Your task to perform on an android device: Search for pizza restaurants on Maps Image 0: 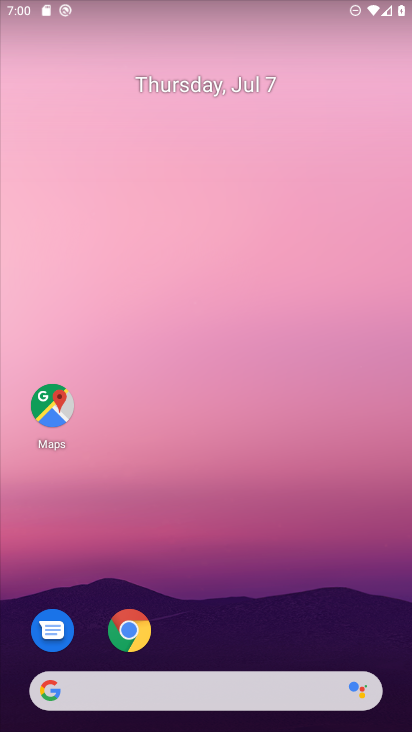
Step 0: click (53, 417)
Your task to perform on an android device: Search for pizza restaurants on Maps Image 1: 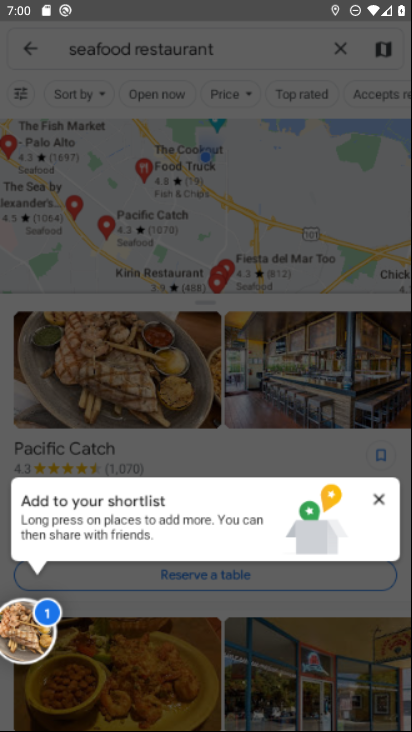
Step 1: click (272, 38)
Your task to perform on an android device: Search for pizza restaurants on Maps Image 2: 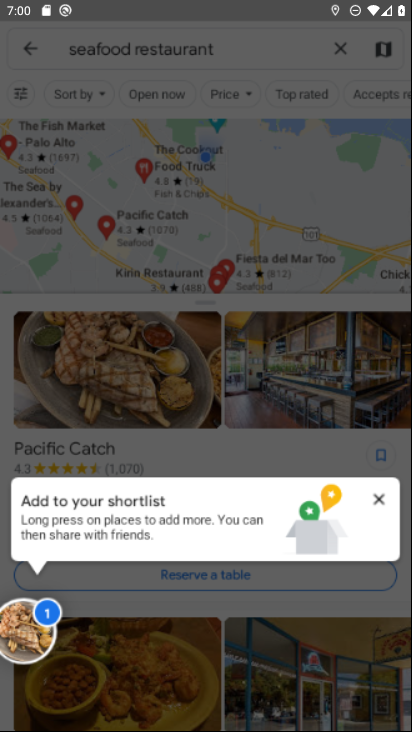
Step 2: click (375, 499)
Your task to perform on an android device: Search for pizza restaurants on Maps Image 3: 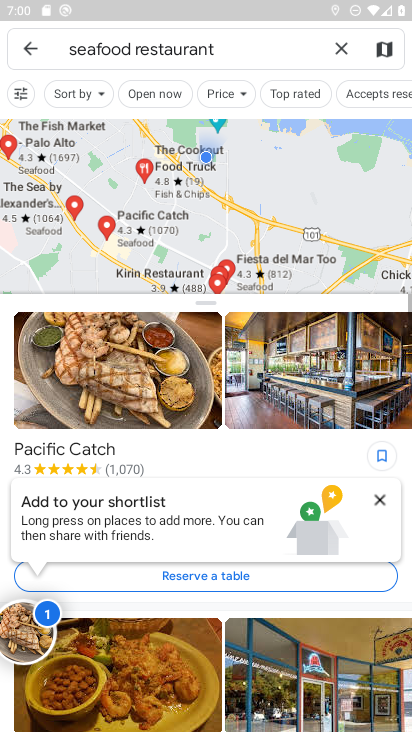
Step 3: click (341, 44)
Your task to perform on an android device: Search for pizza restaurants on Maps Image 4: 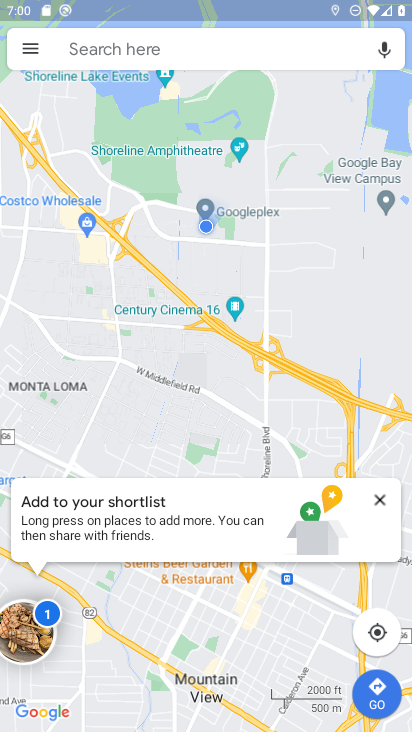
Step 4: click (198, 42)
Your task to perform on an android device: Search for pizza restaurants on Maps Image 5: 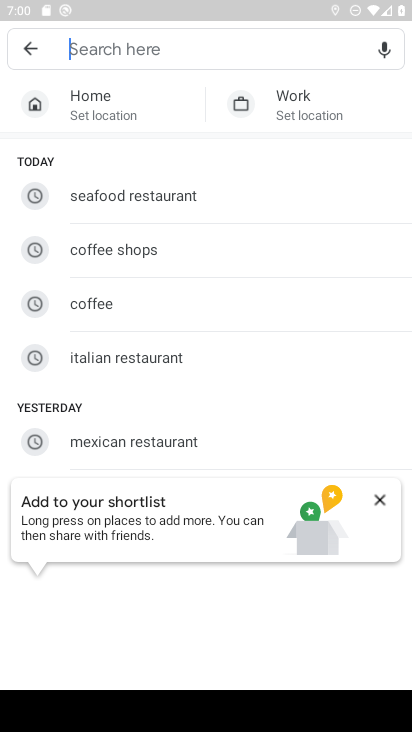
Step 5: type "pizza restaurants"
Your task to perform on an android device: Search for pizza restaurants on Maps Image 6: 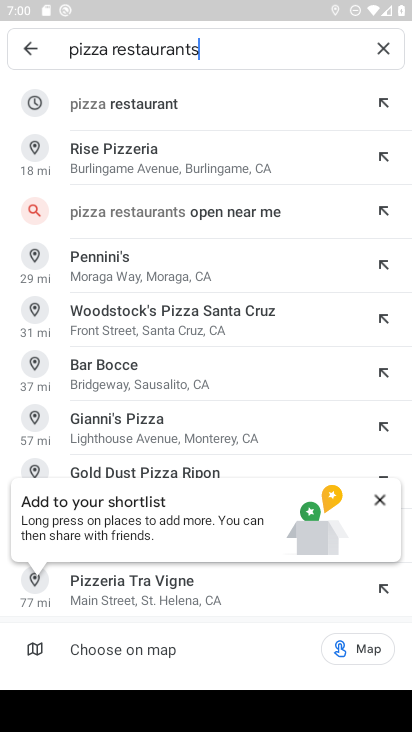
Step 6: click (135, 91)
Your task to perform on an android device: Search for pizza restaurants on Maps Image 7: 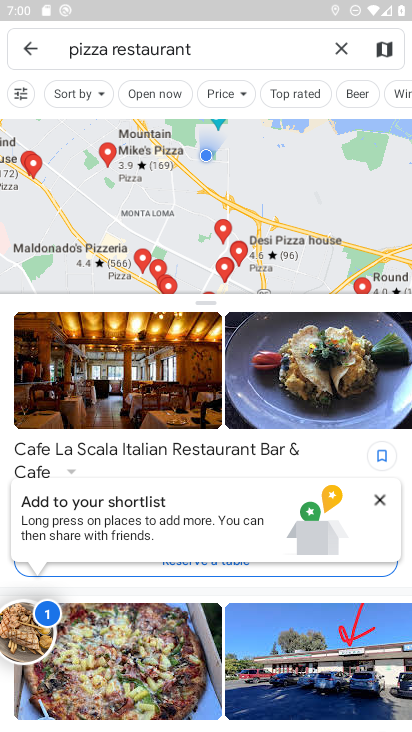
Step 7: task complete